Your task to perform on an android device: create a new album in the google photos Image 0: 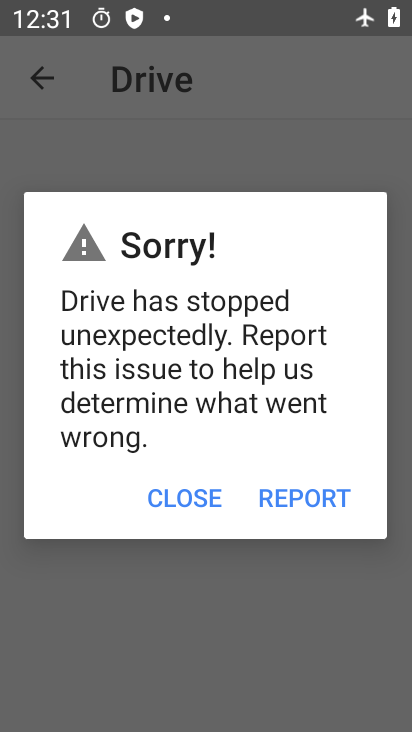
Step 0: press home button
Your task to perform on an android device: create a new album in the google photos Image 1: 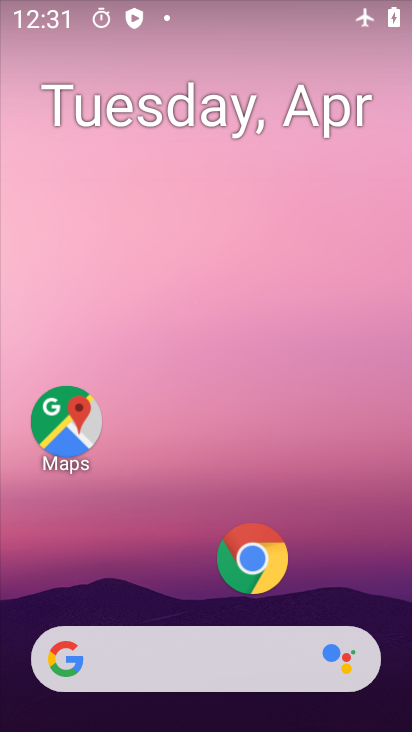
Step 1: drag from (133, 608) to (189, 92)
Your task to perform on an android device: create a new album in the google photos Image 2: 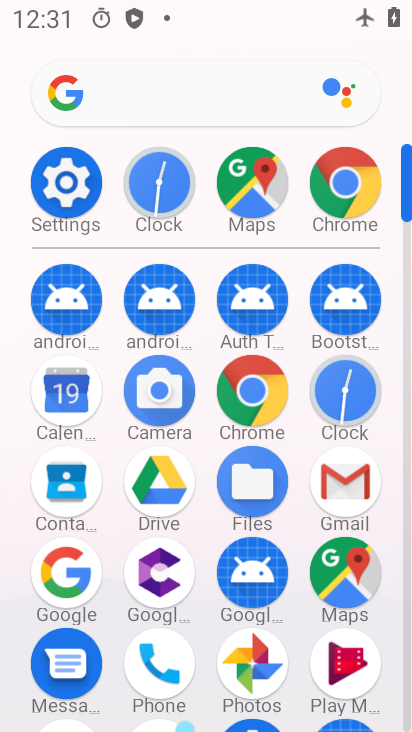
Step 2: click (254, 662)
Your task to perform on an android device: create a new album in the google photos Image 3: 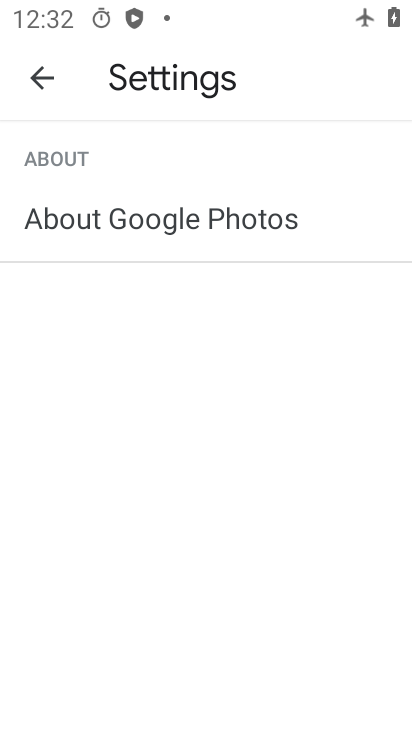
Step 3: click (49, 77)
Your task to perform on an android device: create a new album in the google photos Image 4: 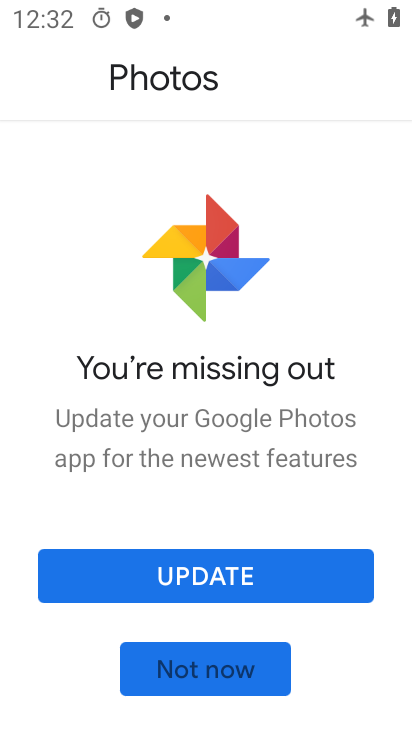
Step 4: click (252, 575)
Your task to perform on an android device: create a new album in the google photos Image 5: 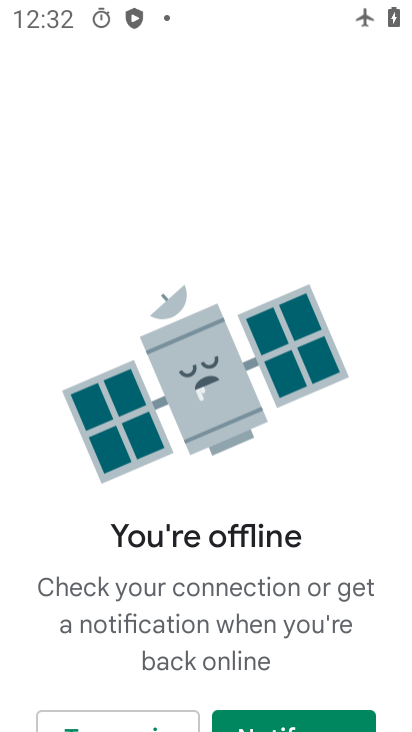
Step 5: task complete